Your task to perform on an android device: create a new album in the google photos Image 0: 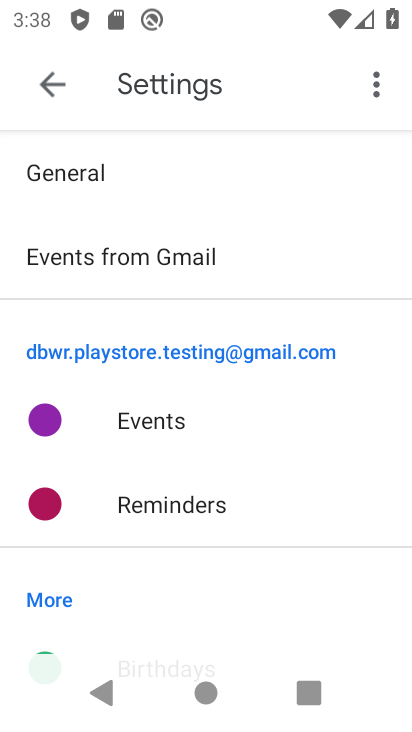
Step 0: press home button
Your task to perform on an android device: create a new album in the google photos Image 1: 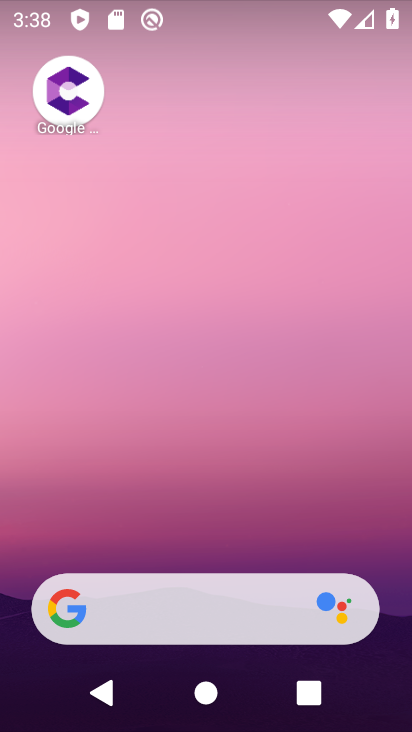
Step 1: drag from (218, 649) to (224, 76)
Your task to perform on an android device: create a new album in the google photos Image 2: 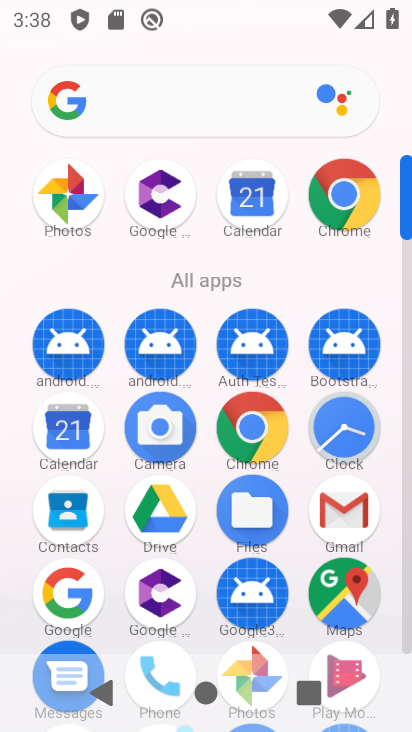
Step 2: click (59, 198)
Your task to perform on an android device: create a new album in the google photos Image 3: 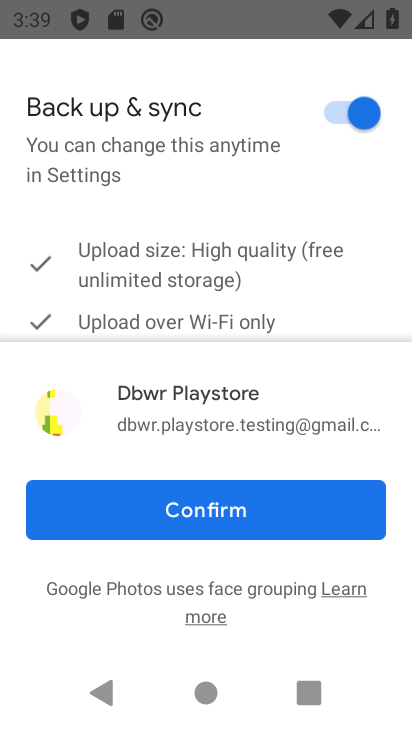
Step 3: click (190, 509)
Your task to perform on an android device: create a new album in the google photos Image 4: 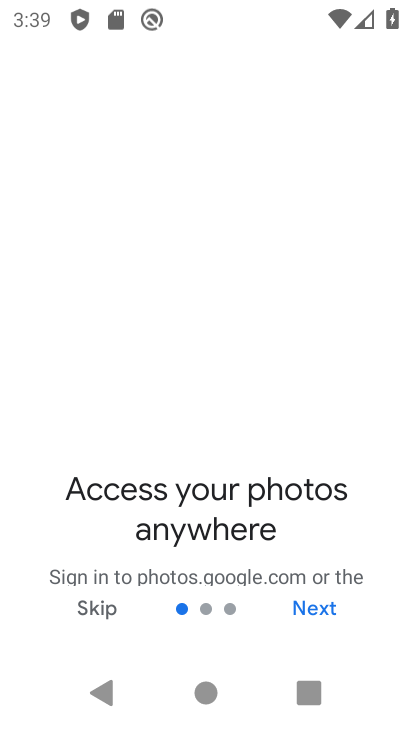
Step 4: click (319, 603)
Your task to perform on an android device: create a new album in the google photos Image 5: 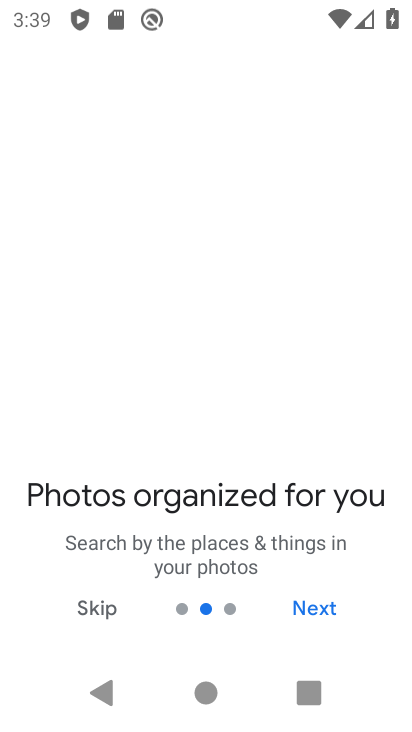
Step 5: click (315, 603)
Your task to perform on an android device: create a new album in the google photos Image 6: 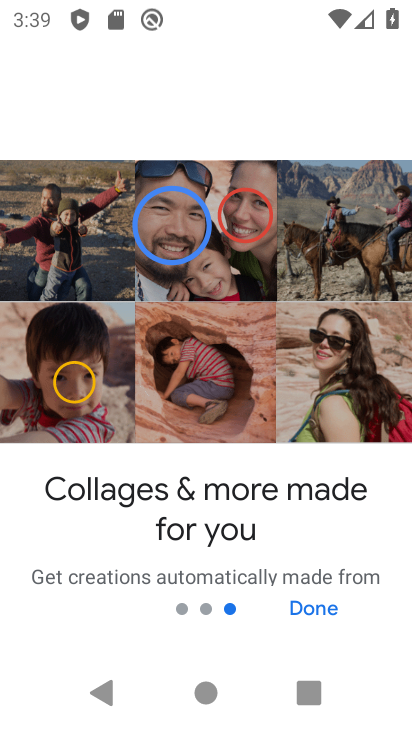
Step 6: click (315, 603)
Your task to perform on an android device: create a new album in the google photos Image 7: 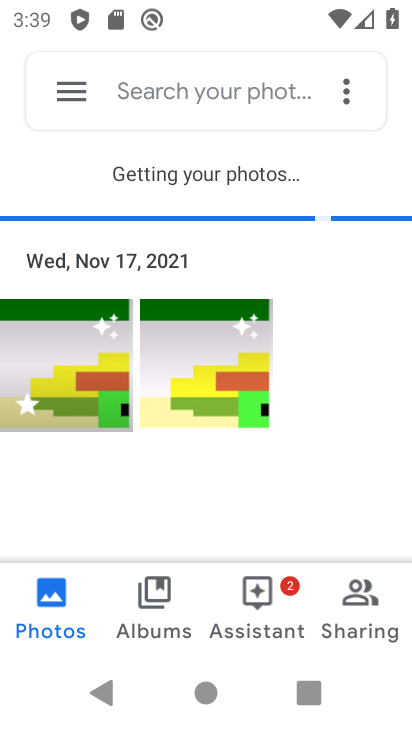
Step 7: click (346, 86)
Your task to perform on an android device: create a new album in the google photos Image 8: 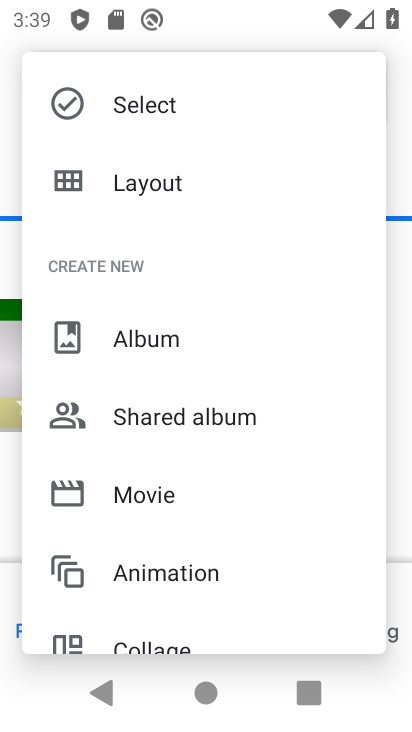
Step 8: click (139, 342)
Your task to perform on an android device: create a new album in the google photos Image 9: 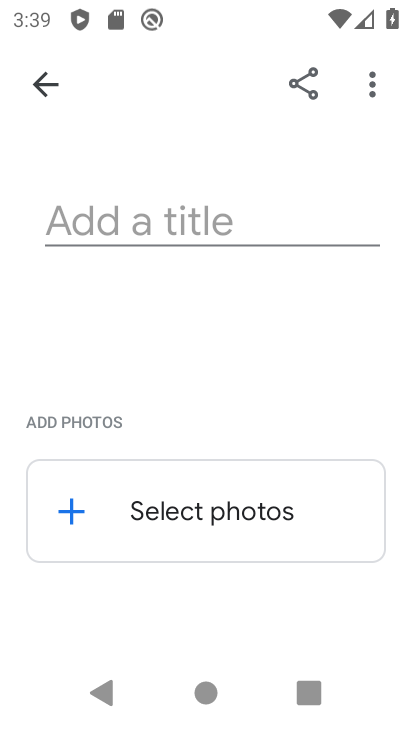
Step 9: click (165, 227)
Your task to perform on an android device: create a new album in the google photos Image 10: 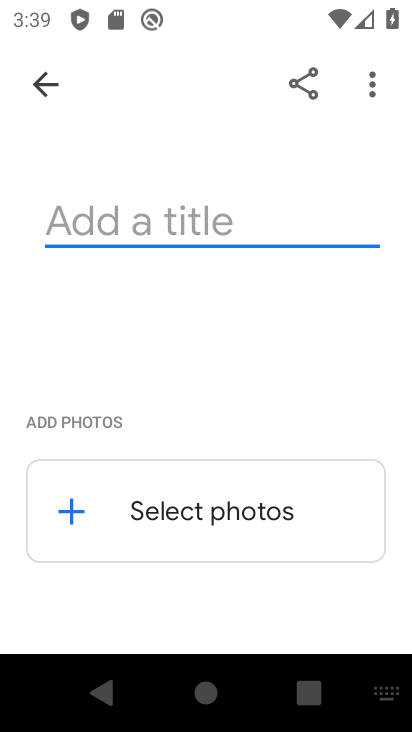
Step 10: type "nnnn"
Your task to perform on an android device: create a new album in the google photos Image 11: 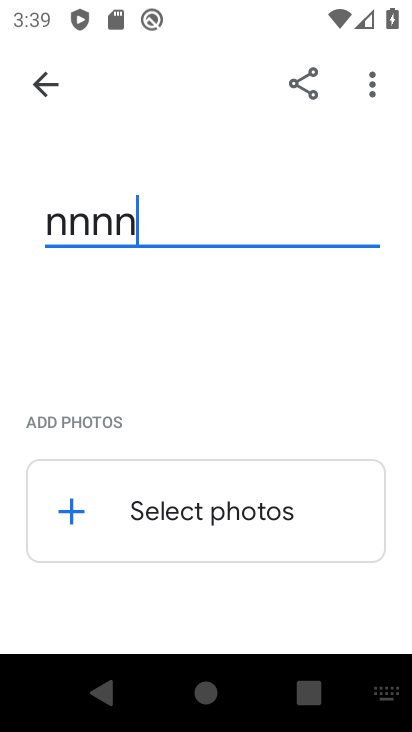
Step 11: click (73, 503)
Your task to perform on an android device: create a new album in the google photos Image 12: 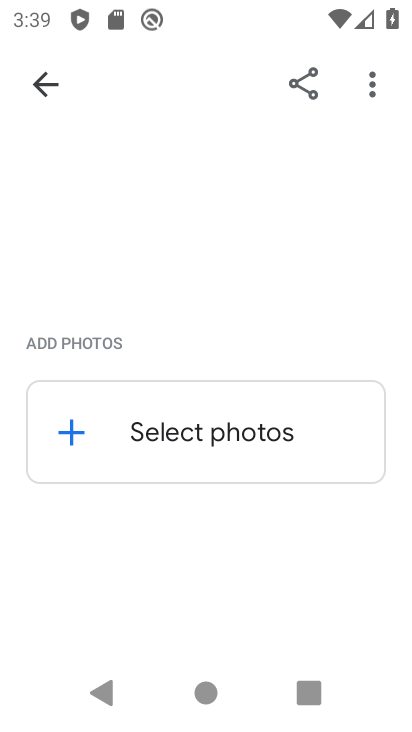
Step 12: click (68, 427)
Your task to perform on an android device: create a new album in the google photos Image 13: 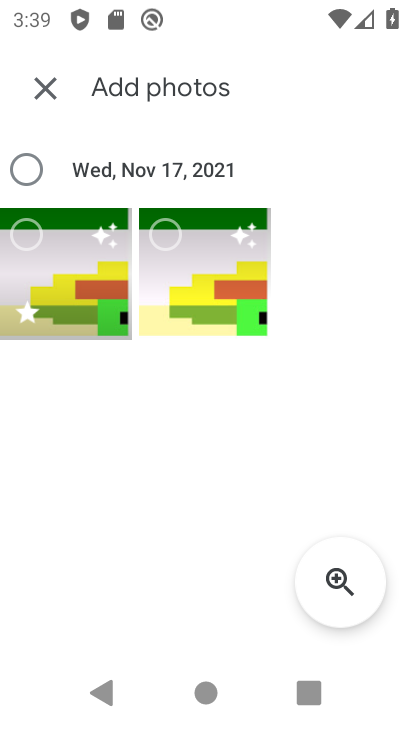
Step 13: click (160, 228)
Your task to perform on an android device: create a new album in the google photos Image 14: 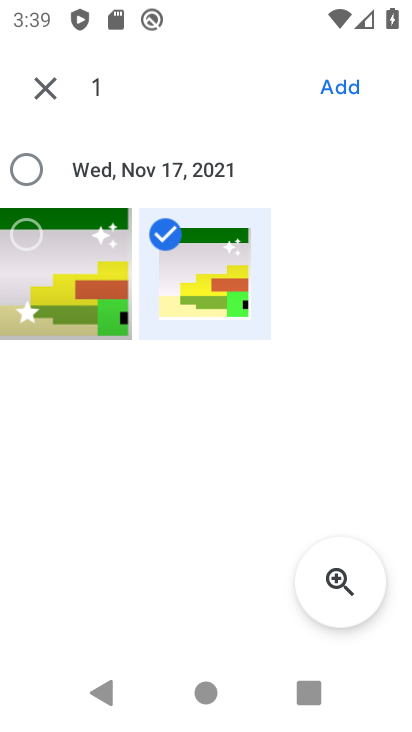
Step 14: click (338, 91)
Your task to perform on an android device: create a new album in the google photos Image 15: 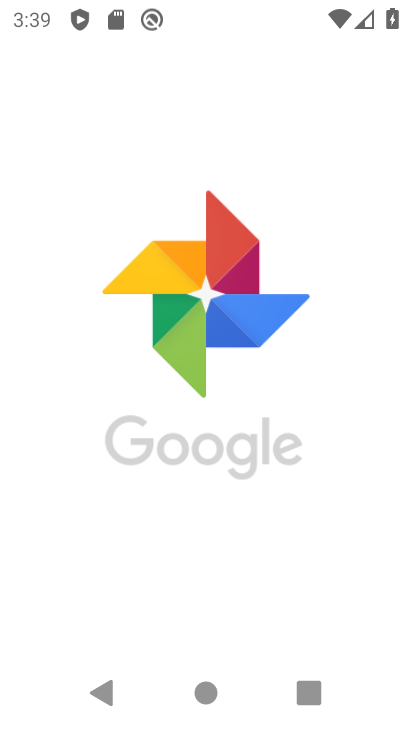
Step 15: task complete